Your task to perform on an android device: Show me the alarms in the clock app Image 0: 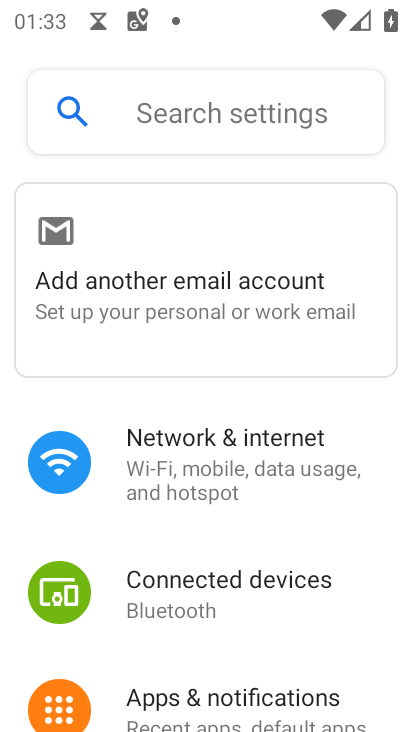
Step 0: press home button
Your task to perform on an android device: Show me the alarms in the clock app Image 1: 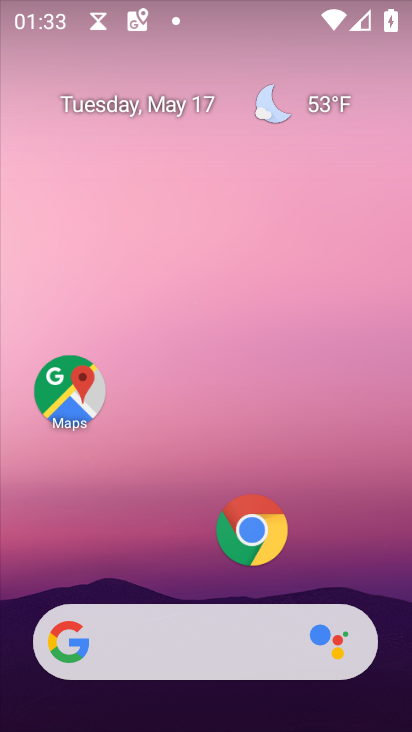
Step 1: drag from (177, 560) to (236, 146)
Your task to perform on an android device: Show me the alarms in the clock app Image 2: 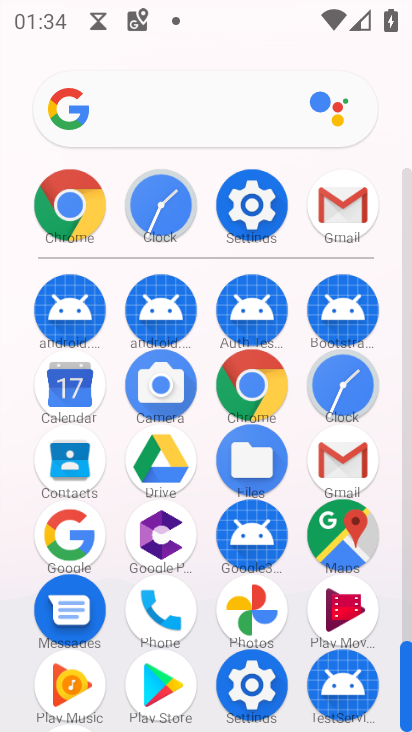
Step 2: click (168, 200)
Your task to perform on an android device: Show me the alarms in the clock app Image 3: 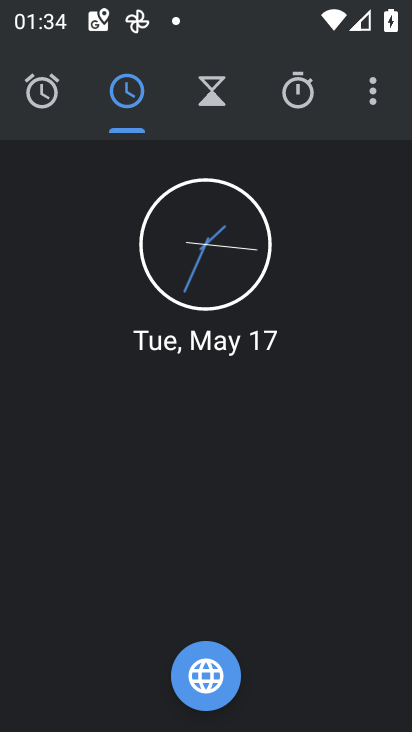
Step 3: click (53, 102)
Your task to perform on an android device: Show me the alarms in the clock app Image 4: 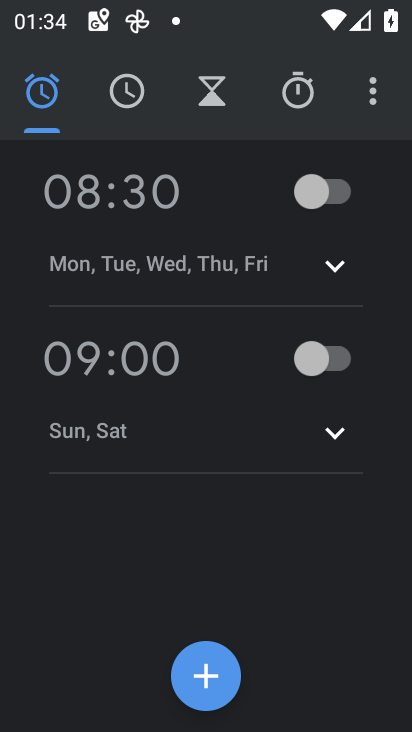
Step 4: task complete